Your task to perform on an android device: Check the news Image 0: 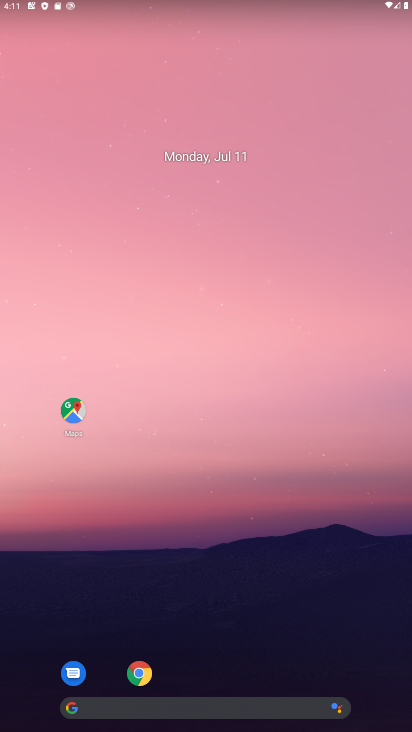
Step 0: click (139, 673)
Your task to perform on an android device: Check the news Image 1: 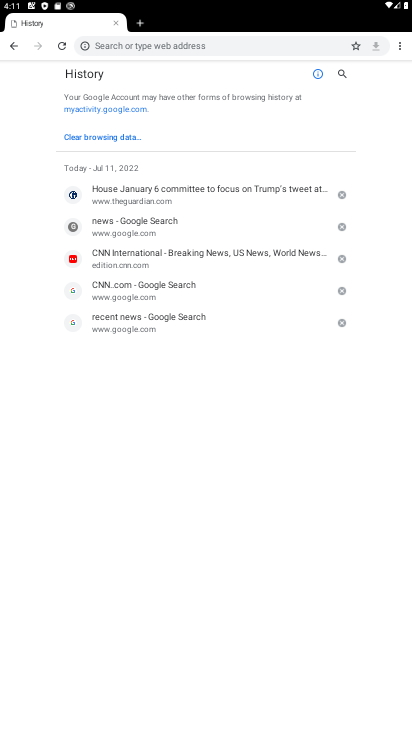
Step 1: click (238, 47)
Your task to perform on an android device: Check the news Image 2: 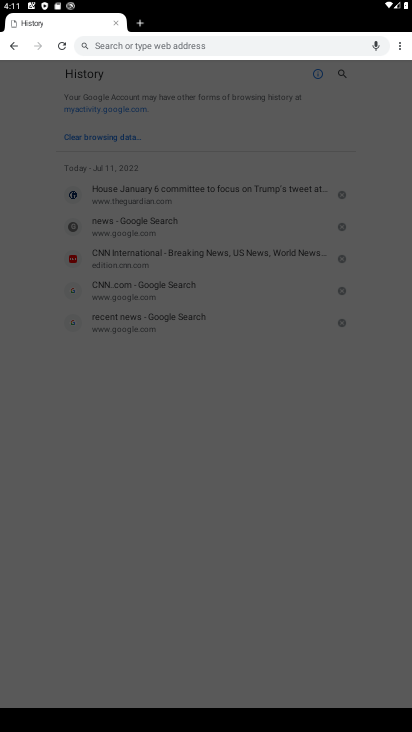
Step 2: type "news"
Your task to perform on an android device: Check the news Image 3: 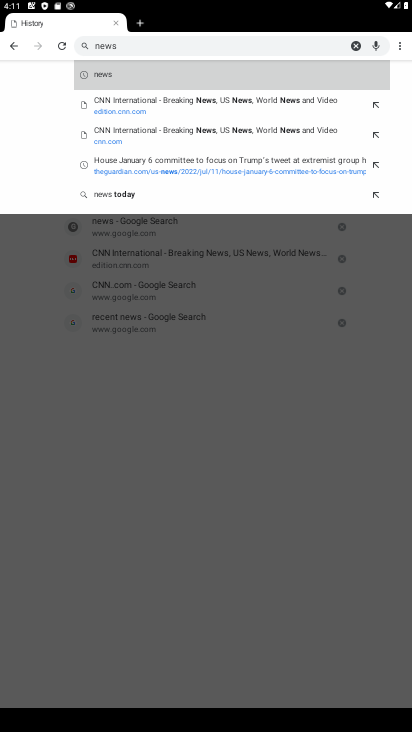
Step 3: click (145, 69)
Your task to perform on an android device: Check the news Image 4: 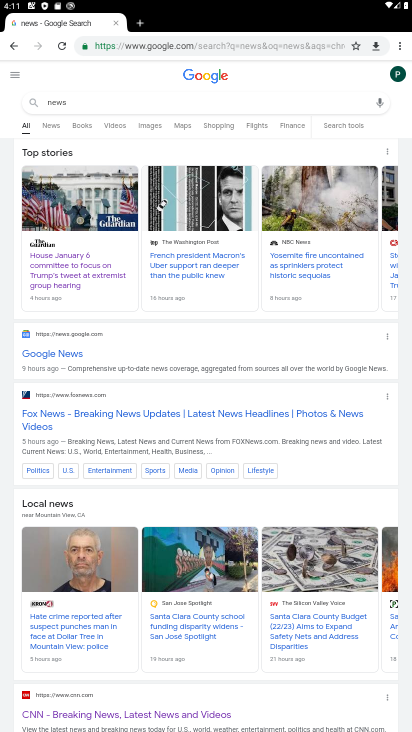
Step 4: click (78, 268)
Your task to perform on an android device: Check the news Image 5: 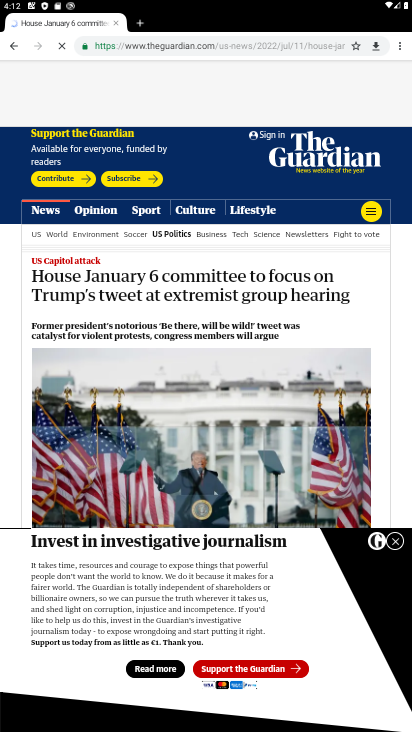
Step 5: task complete